Your task to perform on an android device: Go to internet settings Image 0: 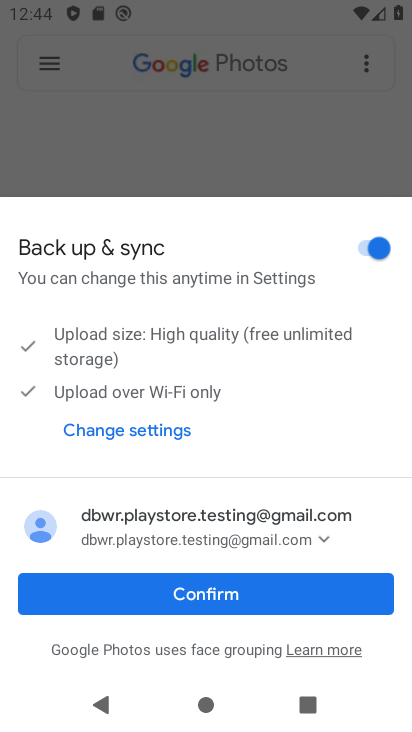
Step 0: press back button
Your task to perform on an android device: Go to internet settings Image 1: 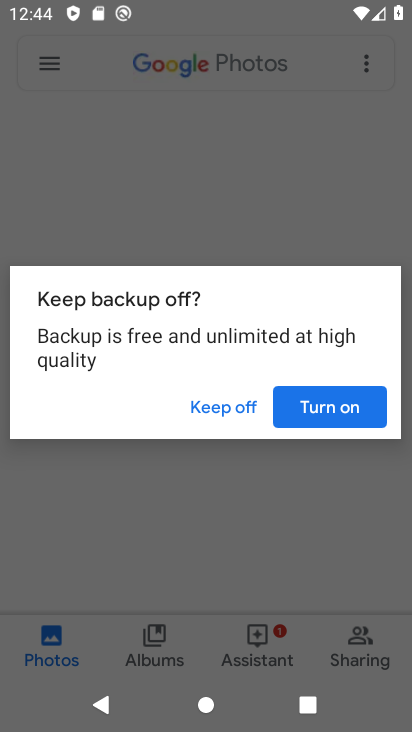
Step 1: press home button
Your task to perform on an android device: Go to internet settings Image 2: 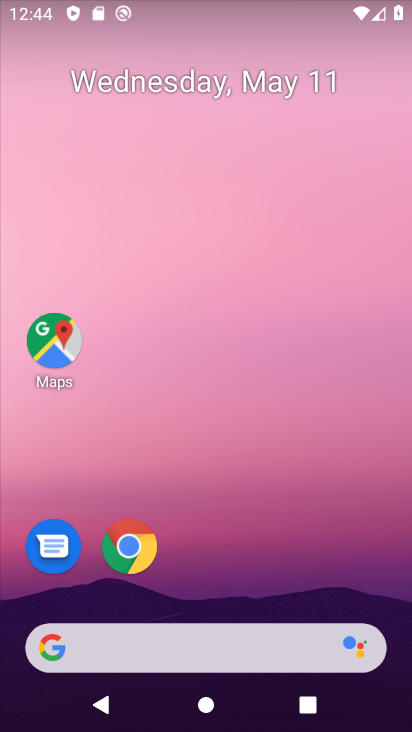
Step 2: drag from (195, 601) to (277, 67)
Your task to perform on an android device: Go to internet settings Image 3: 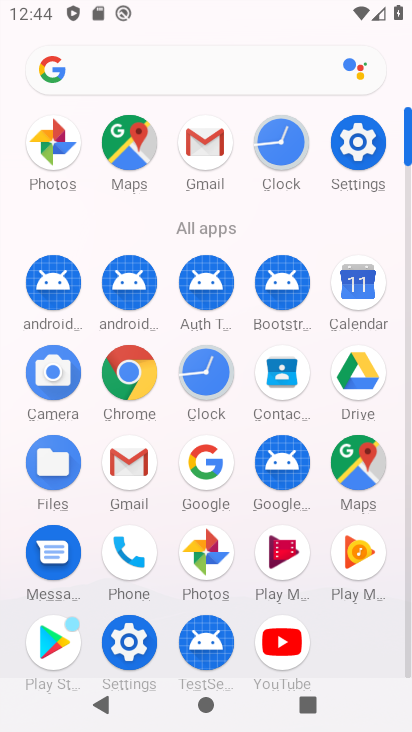
Step 3: click (127, 650)
Your task to perform on an android device: Go to internet settings Image 4: 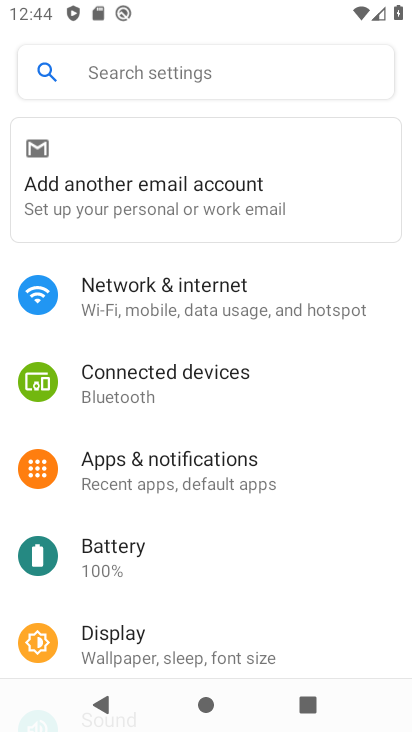
Step 4: click (246, 310)
Your task to perform on an android device: Go to internet settings Image 5: 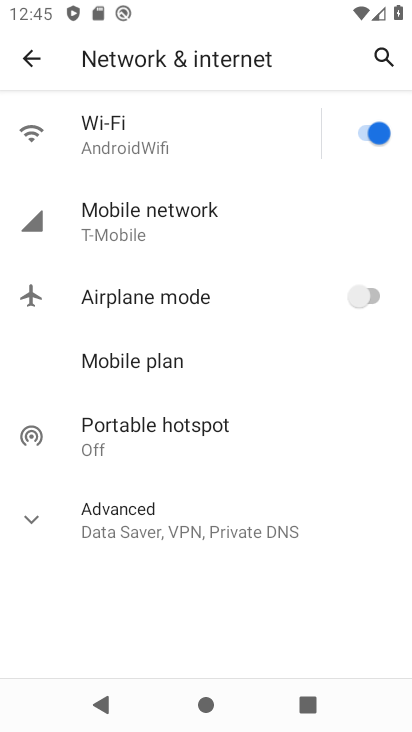
Step 5: click (211, 231)
Your task to perform on an android device: Go to internet settings Image 6: 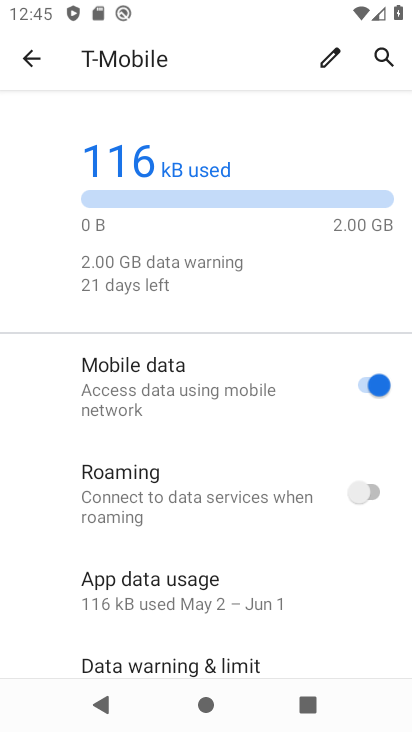
Step 6: task complete